Your task to perform on an android device: clear all cookies in the chrome app Image 0: 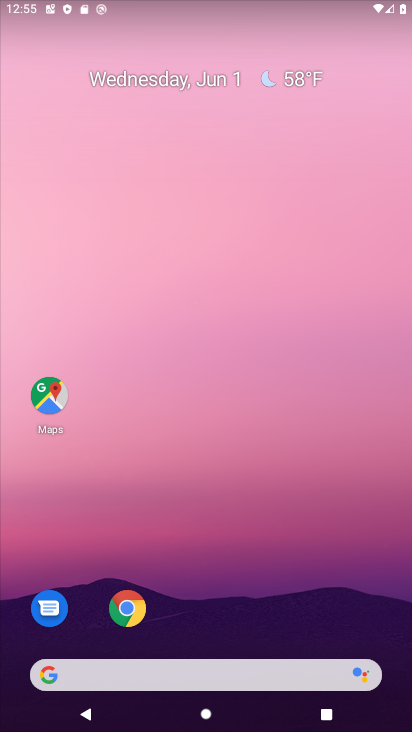
Step 0: click (139, 604)
Your task to perform on an android device: clear all cookies in the chrome app Image 1: 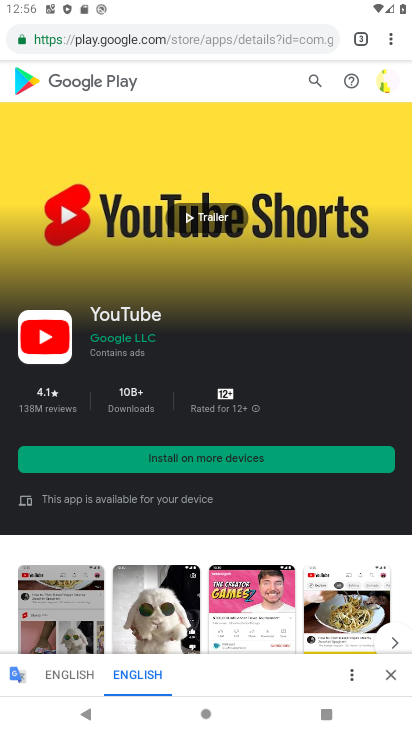
Step 1: click (396, 44)
Your task to perform on an android device: clear all cookies in the chrome app Image 2: 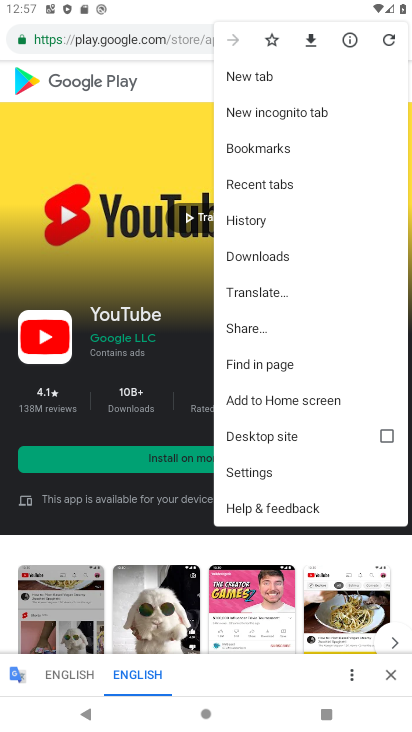
Step 2: click (253, 463)
Your task to perform on an android device: clear all cookies in the chrome app Image 3: 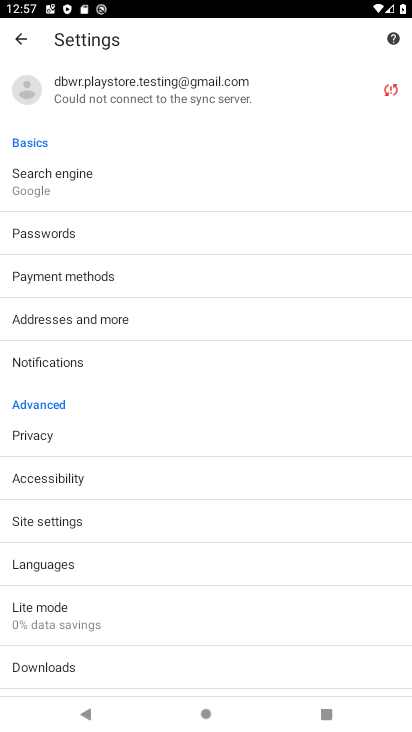
Step 3: click (79, 517)
Your task to perform on an android device: clear all cookies in the chrome app Image 4: 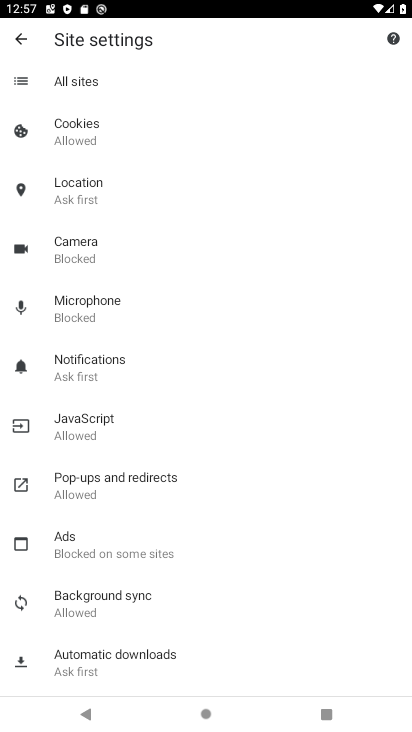
Step 4: click (158, 125)
Your task to perform on an android device: clear all cookies in the chrome app Image 5: 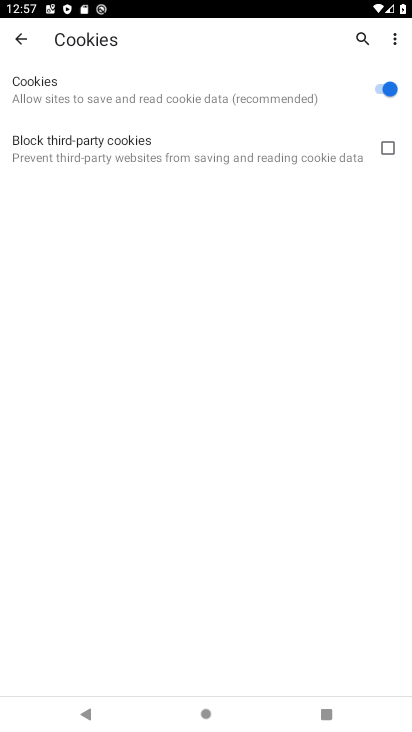
Step 5: click (247, 136)
Your task to perform on an android device: clear all cookies in the chrome app Image 6: 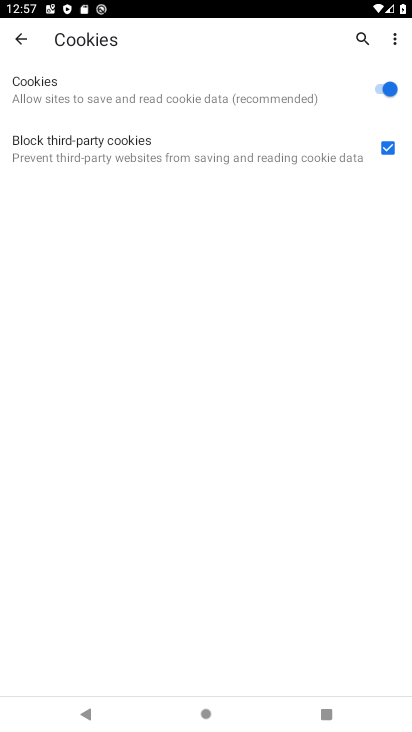
Step 6: click (247, 136)
Your task to perform on an android device: clear all cookies in the chrome app Image 7: 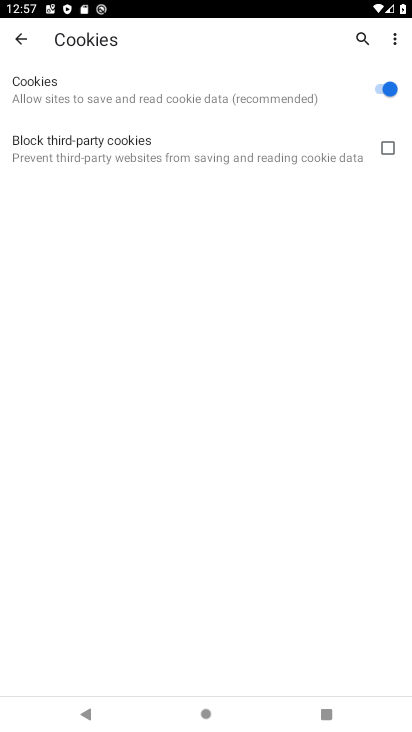
Step 7: click (287, 86)
Your task to perform on an android device: clear all cookies in the chrome app Image 8: 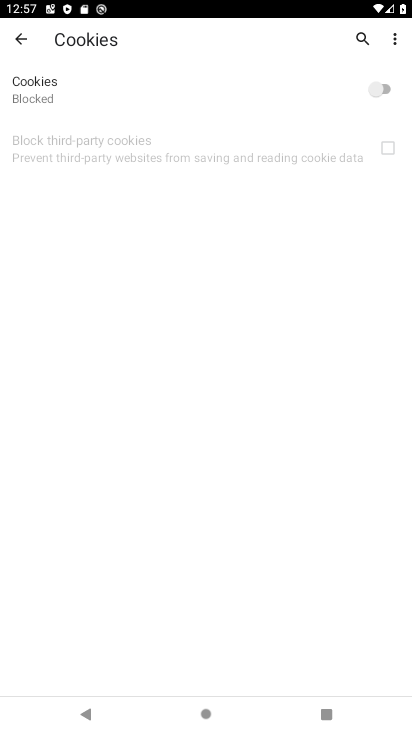
Step 8: click (287, 86)
Your task to perform on an android device: clear all cookies in the chrome app Image 9: 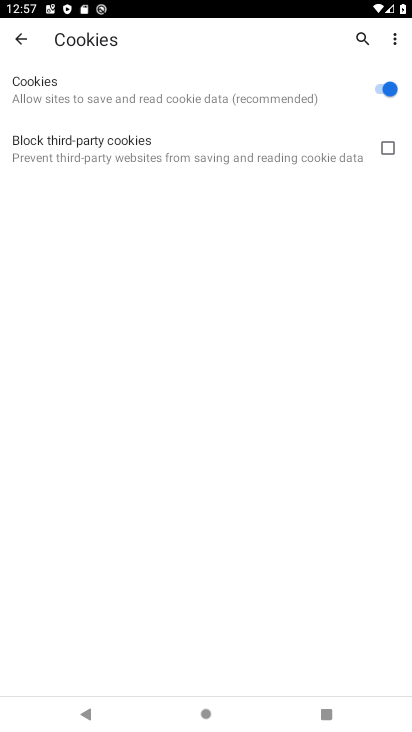
Step 9: press back button
Your task to perform on an android device: clear all cookies in the chrome app Image 10: 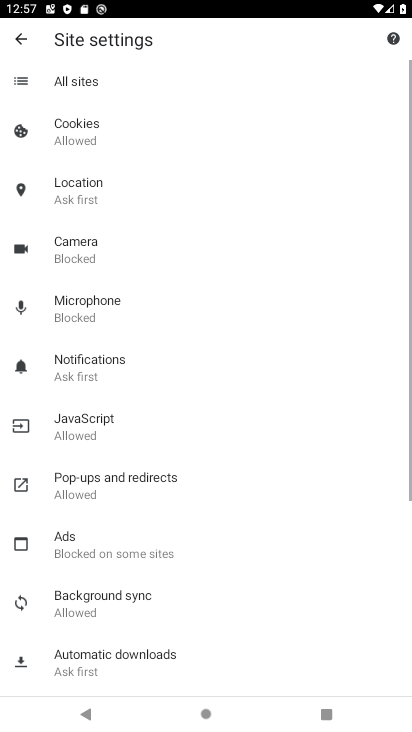
Step 10: drag from (216, 556) to (224, 163)
Your task to perform on an android device: clear all cookies in the chrome app Image 11: 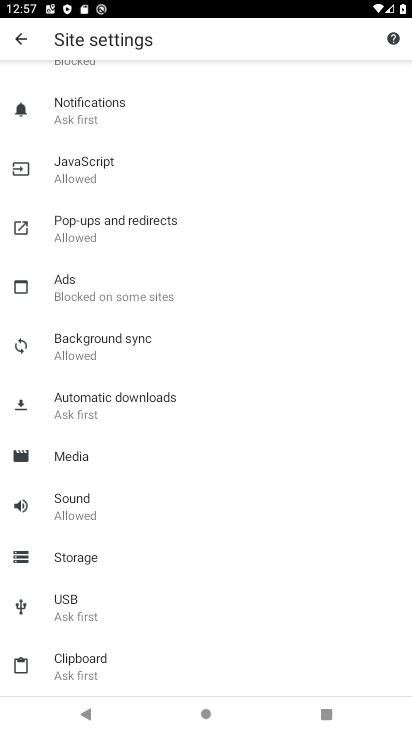
Step 11: drag from (150, 559) to (181, 164)
Your task to perform on an android device: clear all cookies in the chrome app Image 12: 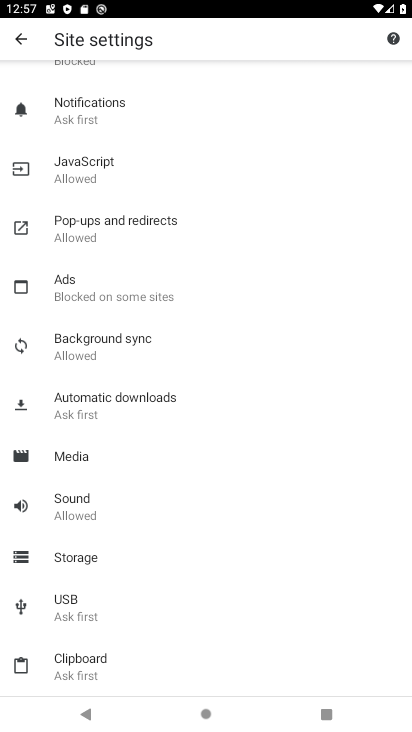
Step 12: drag from (340, 276) to (335, 657)
Your task to perform on an android device: clear all cookies in the chrome app Image 13: 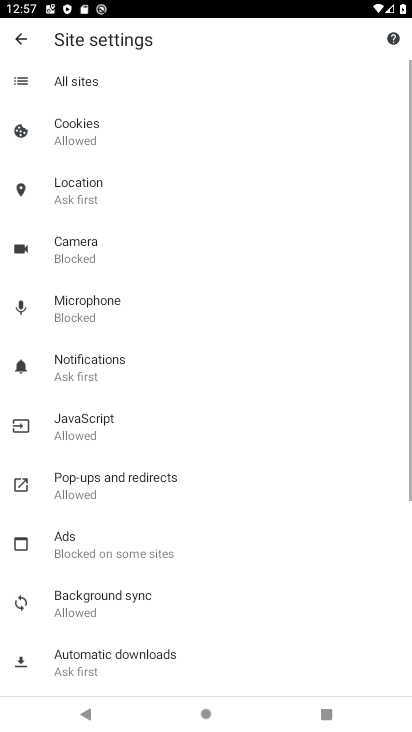
Step 13: drag from (321, 170) to (300, 727)
Your task to perform on an android device: clear all cookies in the chrome app Image 14: 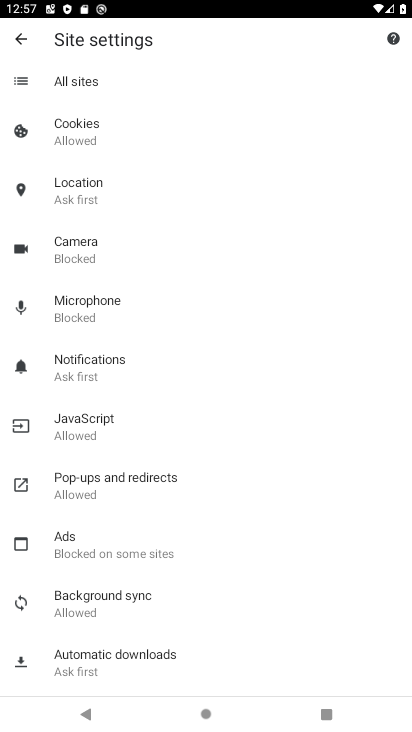
Step 14: press back button
Your task to perform on an android device: clear all cookies in the chrome app Image 15: 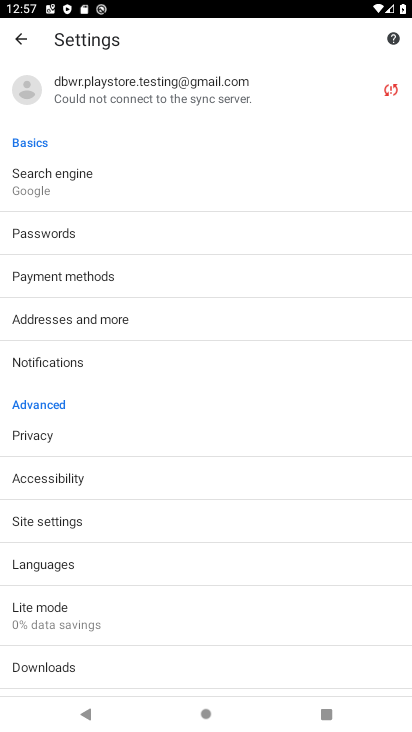
Step 15: drag from (323, 606) to (301, 203)
Your task to perform on an android device: clear all cookies in the chrome app Image 16: 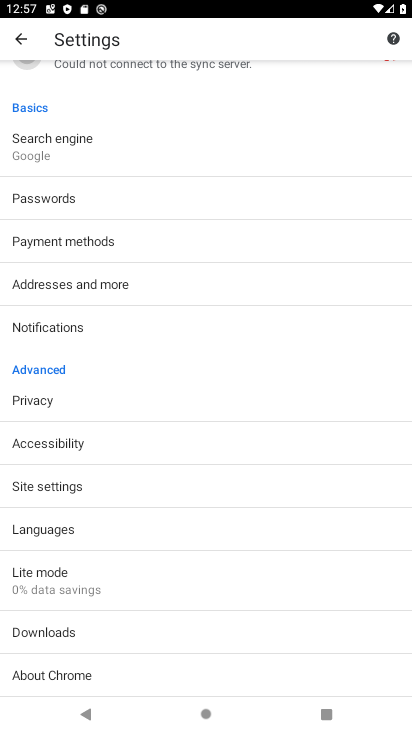
Step 16: click (122, 667)
Your task to perform on an android device: clear all cookies in the chrome app Image 17: 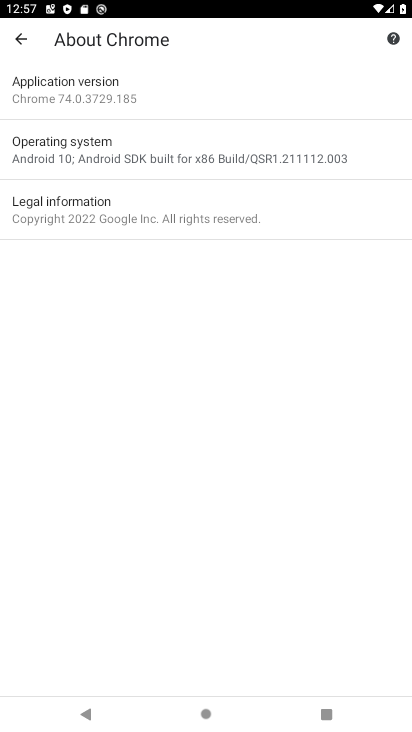
Step 17: press back button
Your task to perform on an android device: clear all cookies in the chrome app Image 18: 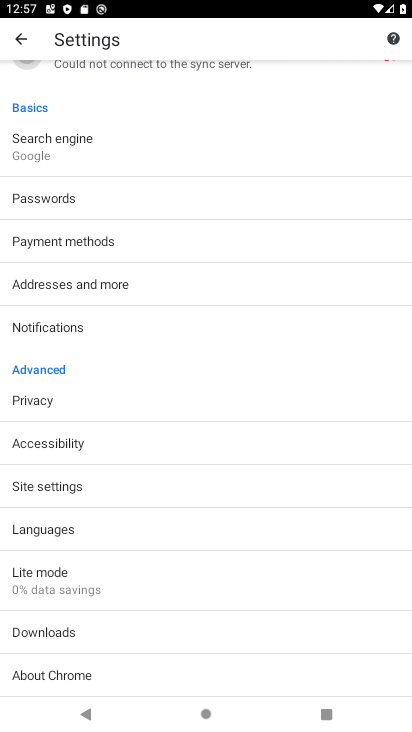
Step 18: click (99, 394)
Your task to perform on an android device: clear all cookies in the chrome app Image 19: 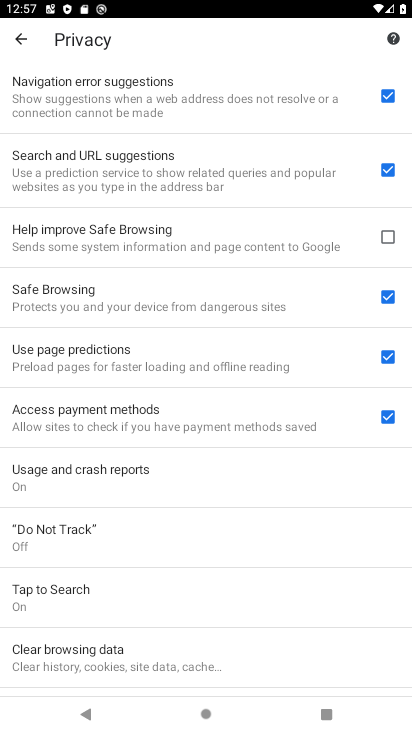
Step 19: drag from (181, 518) to (210, 286)
Your task to perform on an android device: clear all cookies in the chrome app Image 20: 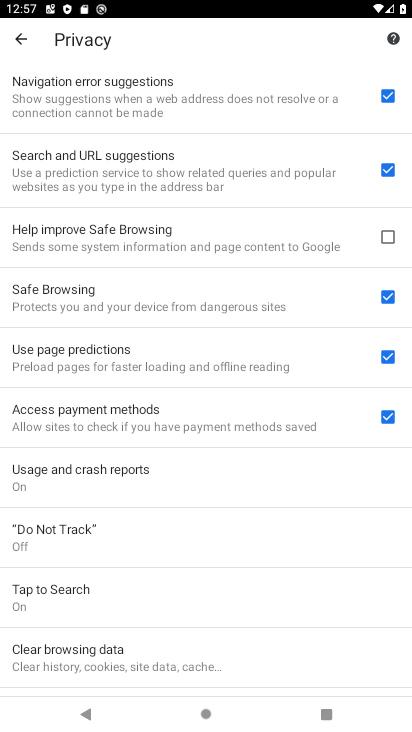
Step 20: click (131, 645)
Your task to perform on an android device: clear all cookies in the chrome app Image 21: 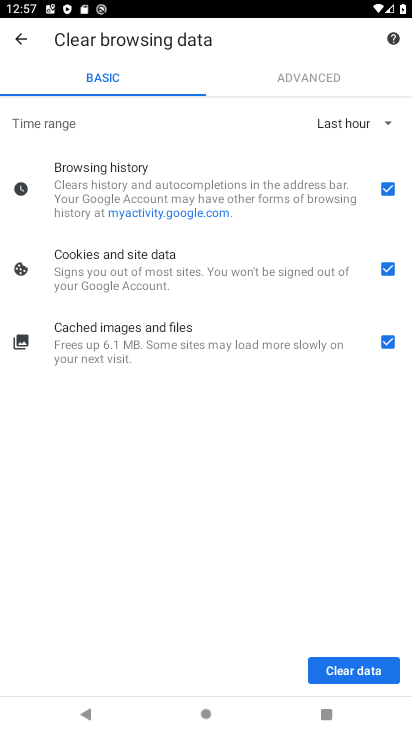
Step 21: click (375, 360)
Your task to perform on an android device: clear all cookies in the chrome app Image 22: 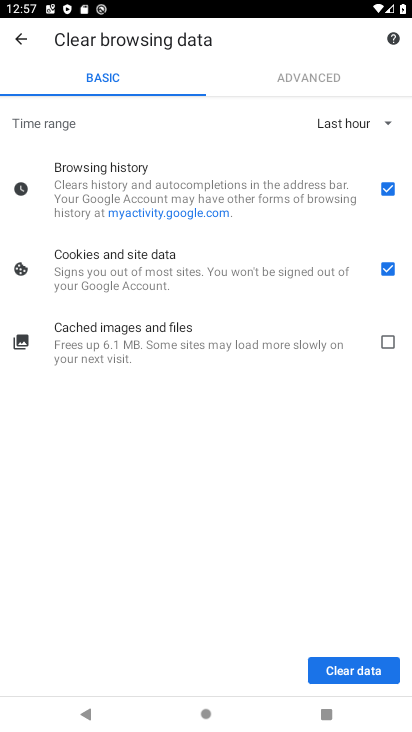
Step 22: click (367, 182)
Your task to perform on an android device: clear all cookies in the chrome app Image 23: 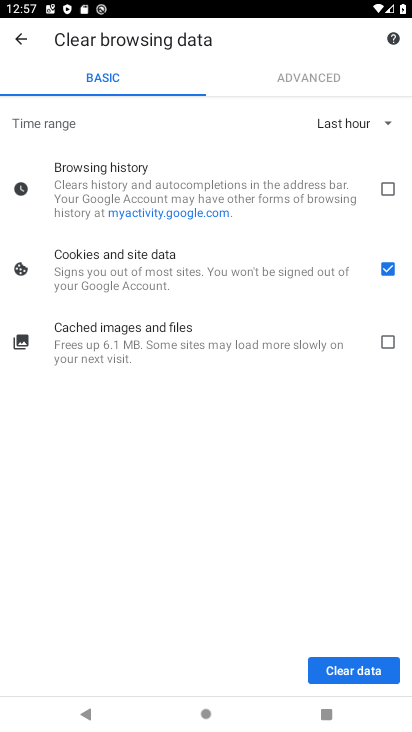
Step 23: click (353, 672)
Your task to perform on an android device: clear all cookies in the chrome app Image 24: 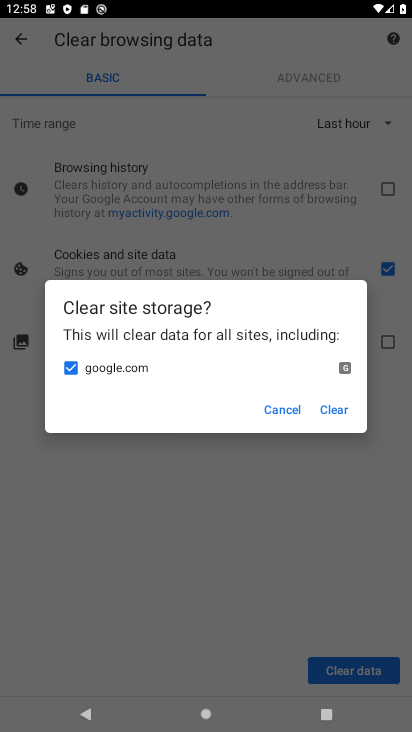
Step 24: click (332, 397)
Your task to perform on an android device: clear all cookies in the chrome app Image 25: 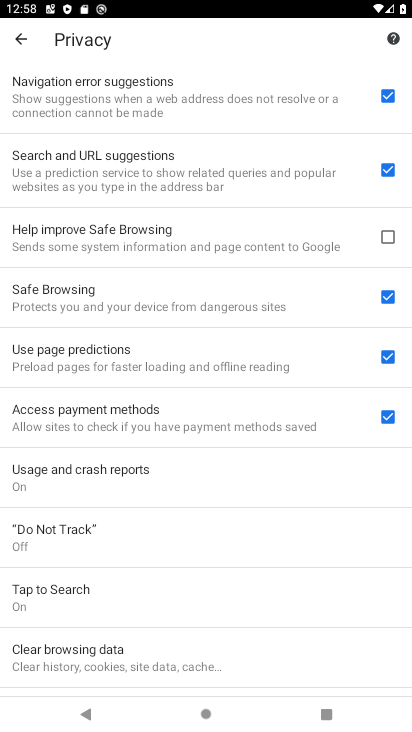
Step 25: task complete